Your task to perform on an android device: check android version Image 0: 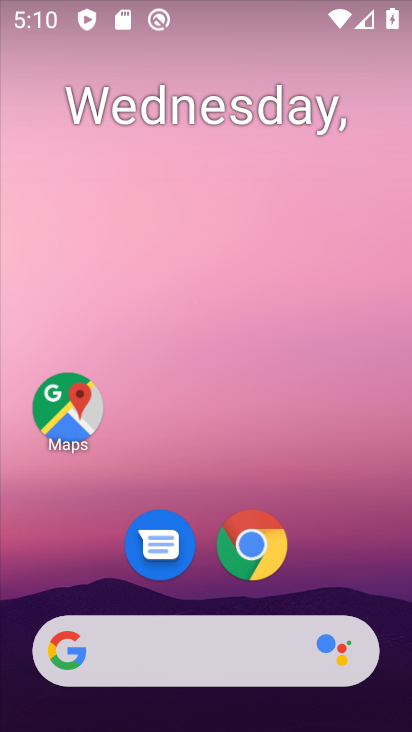
Step 0: drag from (197, 533) to (221, 26)
Your task to perform on an android device: check android version Image 1: 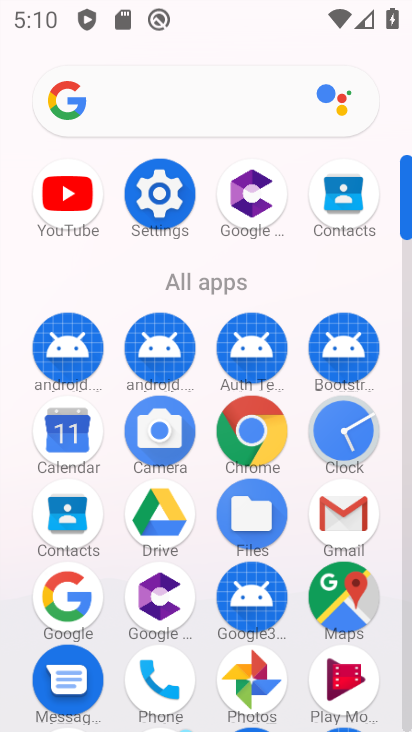
Step 1: click (153, 182)
Your task to perform on an android device: check android version Image 2: 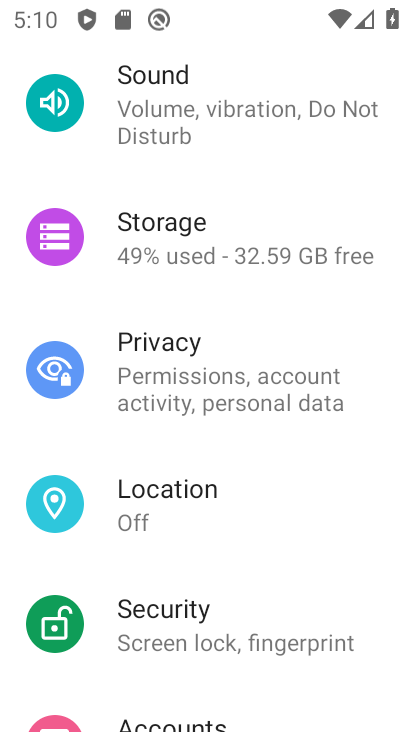
Step 2: drag from (211, 646) to (310, 73)
Your task to perform on an android device: check android version Image 3: 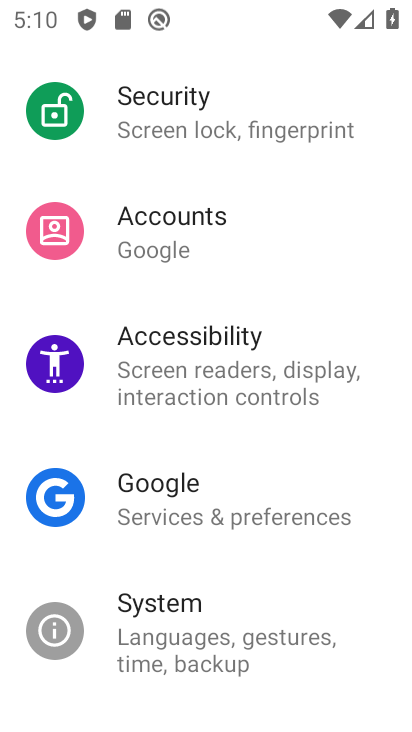
Step 3: drag from (179, 686) to (319, 90)
Your task to perform on an android device: check android version Image 4: 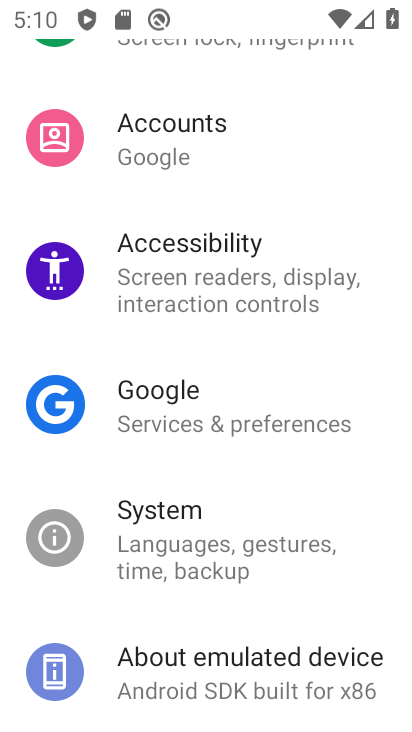
Step 4: click (122, 700)
Your task to perform on an android device: check android version Image 5: 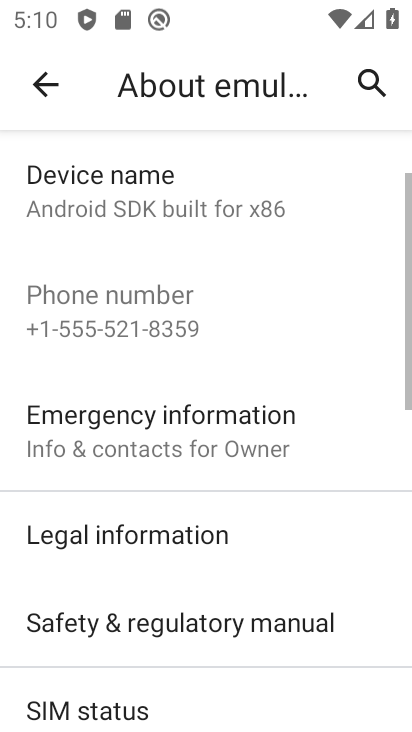
Step 5: drag from (273, 681) to (251, 102)
Your task to perform on an android device: check android version Image 6: 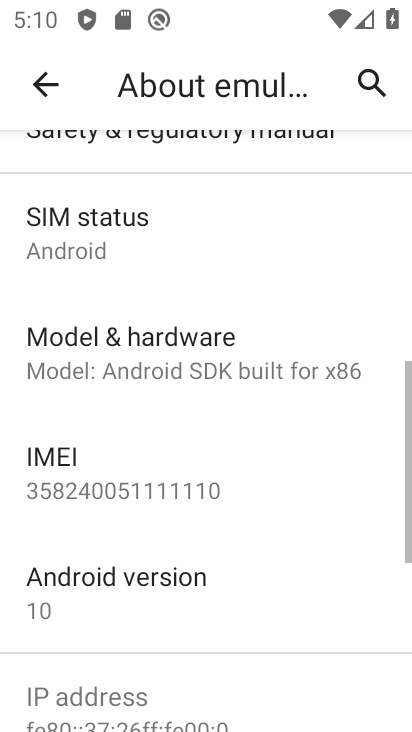
Step 6: click (117, 608)
Your task to perform on an android device: check android version Image 7: 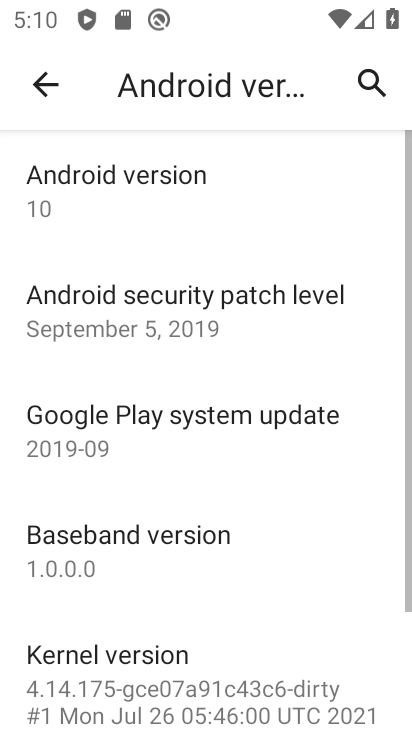
Step 7: click (118, 179)
Your task to perform on an android device: check android version Image 8: 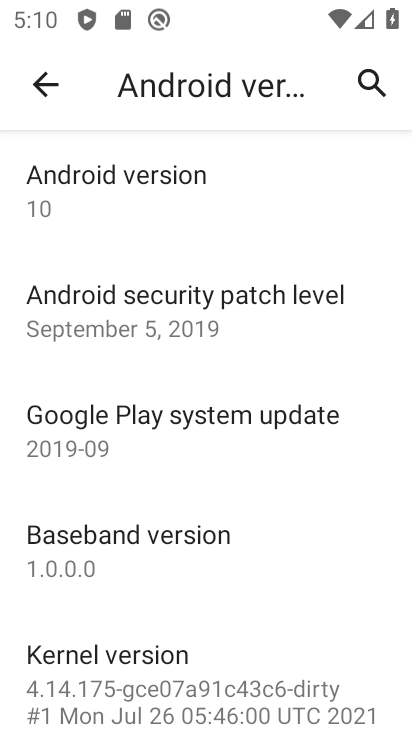
Step 8: task complete